Your task to perform on an android device: Open Reddit.com Image 0: 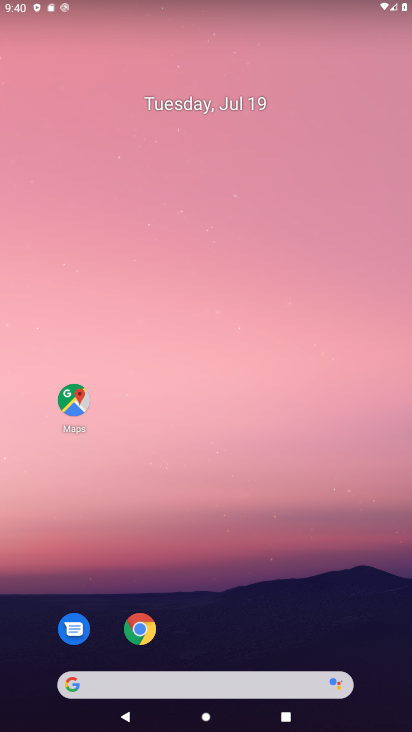
Step 0: click (140, 638)
Your task to perform on an android device: Open Reddit.com Image 1: 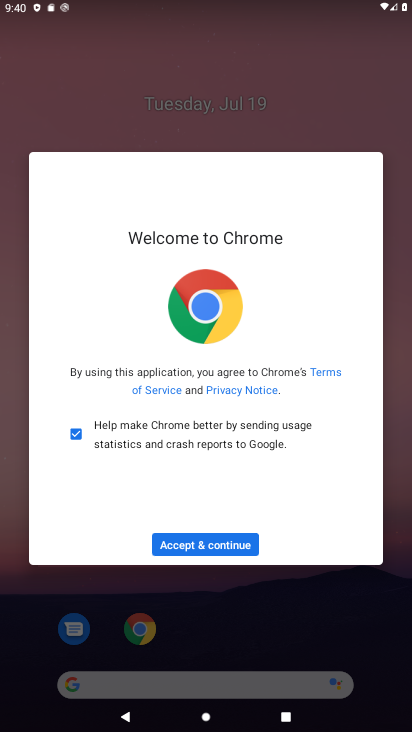
Step 1: click (211, 545)
Your task to perform on an android device: Open Reddit.com Image 2: 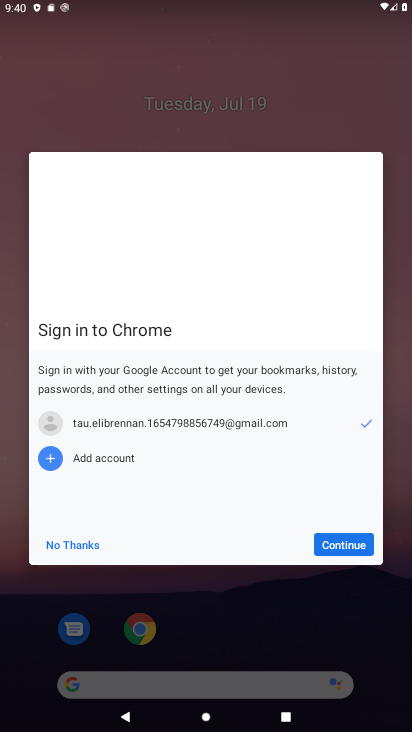
Step 2: click (324, 545)
Your task to perform on an android device: Open Reddit.com Image 3: 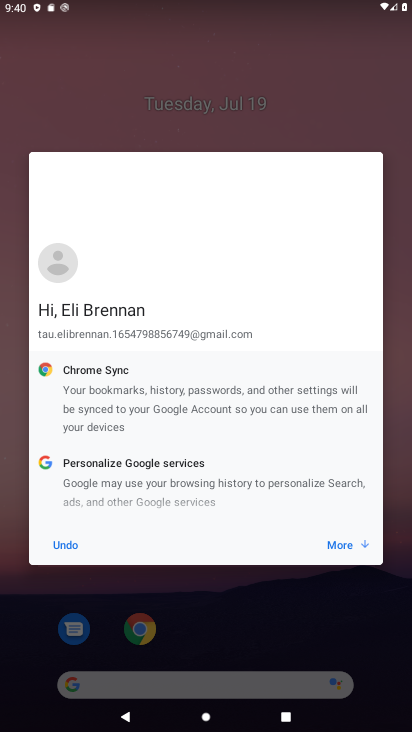
Step 3: click (324, 545)
Your task to perform on an android device: Open Reddit.com Image 4: 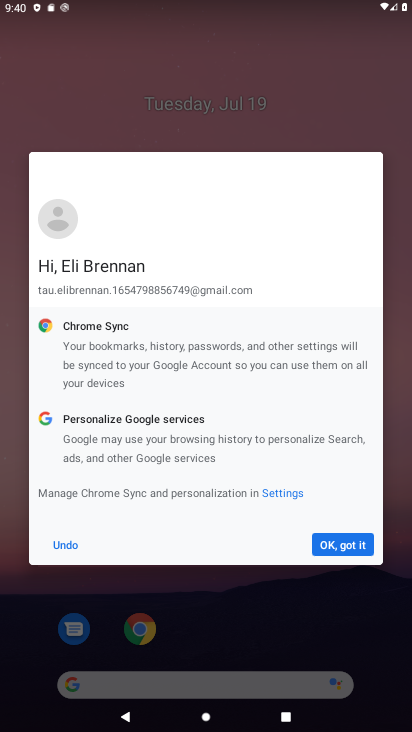
Step 4: click (324, 545)
Your task to perform on an android device: Open Reddit.com Image 5: 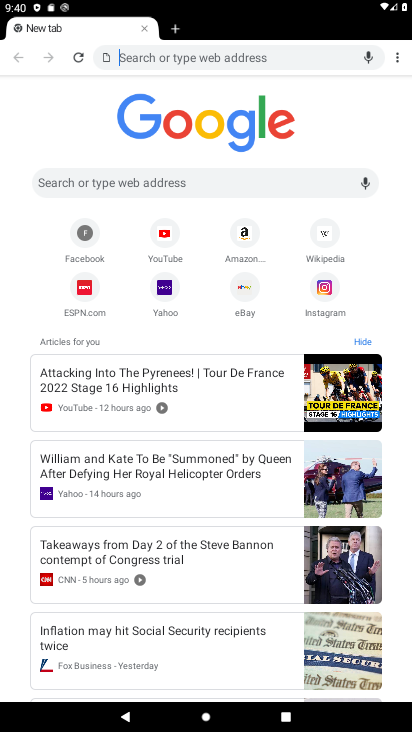
Step 5: type "Reddit.com"
Your task to perform on an android device: Open Reddit.com Image 6: 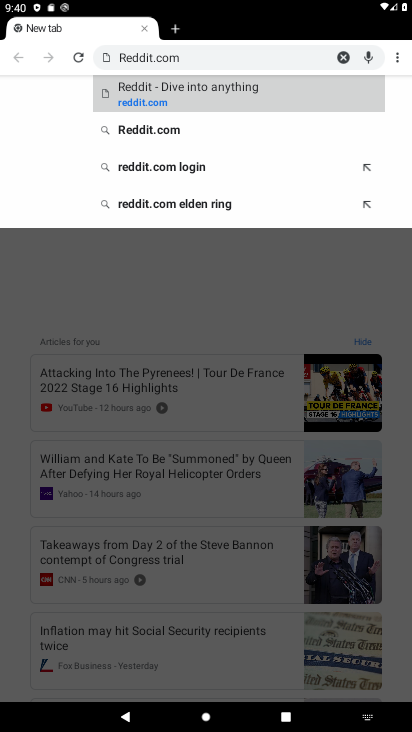
Step 6: click (224, 85)
Your task to perform on an android device: Open Reddit.com Image 7: 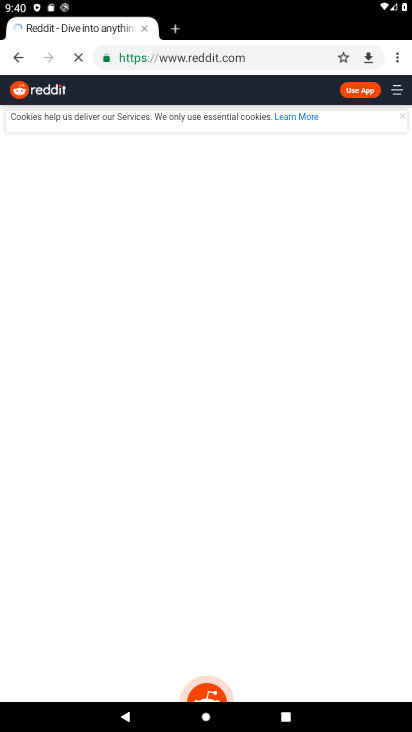
Step 7: task complete